Your task to perform on an android device: Open Chrome and go to the settings page Image 0: 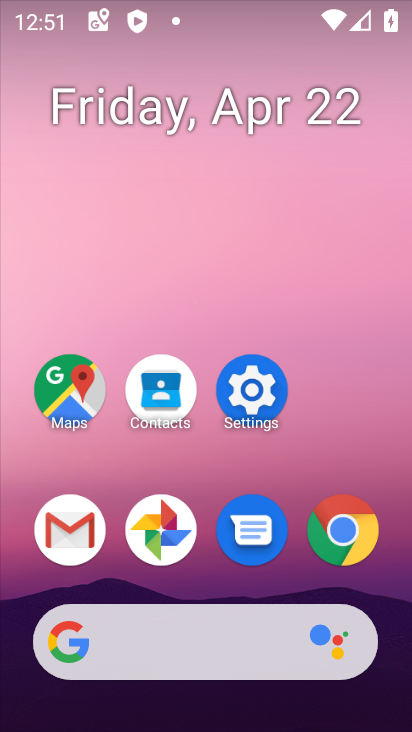
Step 0: press home button
Your task to perform on an android device: Open Chrome and go to the settings page Image 1: 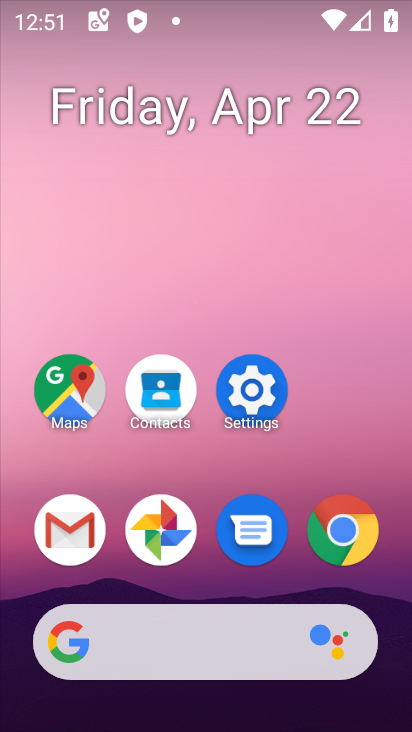
Step 1: click (343, 538)
Your task to perform on an android device: Open Chrome and go to the settings page Image 2: 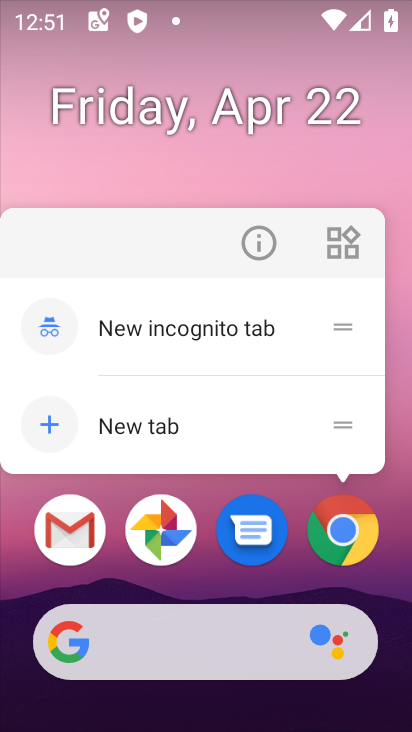
Step 2: click (356, 524)
Your task to perform on an android device: Open Chrome and go to the settings page Image 3: 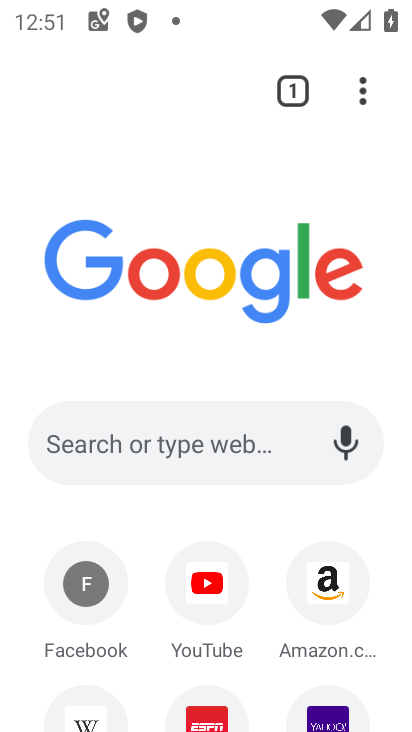
Step 3: click (353, 96)
Your task to perform on an android device: Open Chrome and go to the settings page Image 4: 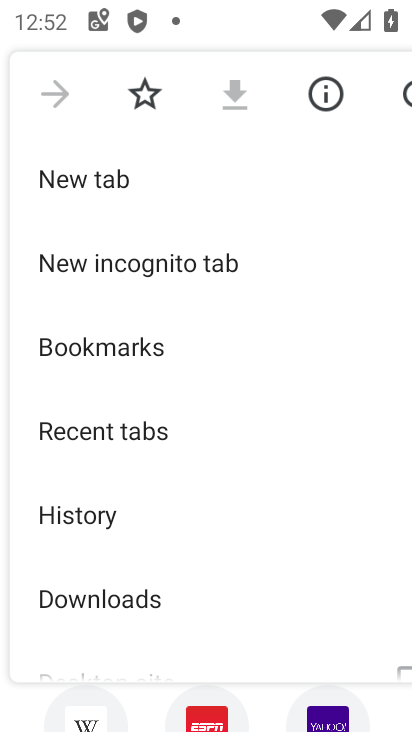
Step 4: drag from (254, 300) to (264, 38)
Your task to perform on an android device: Open Chrome and go to the settings page Image 5: 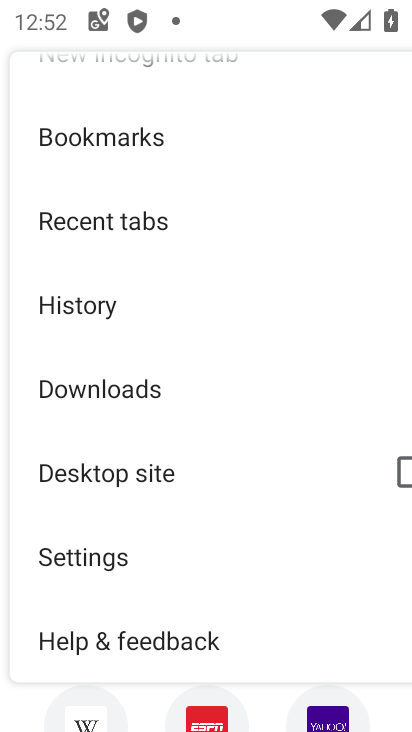
Step 5: click (100, 562)
Your task to perform on an android device: Open Chrome and go to the settings page Image 6: 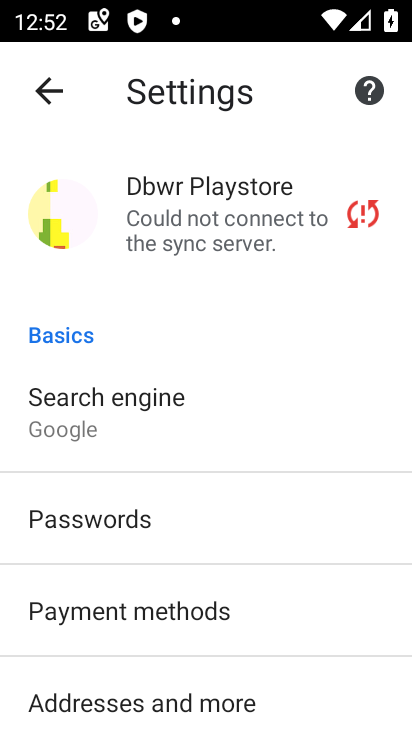
Step 6: task complete